Your task to perform on an android device: Open settings on Google Maps Image 0: 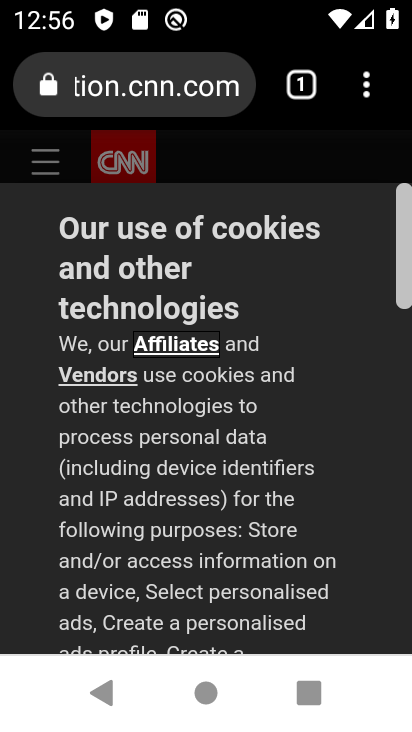
Step 0: press home button
Your task to perform on an android device: Open settings on Google Maps Image 1: 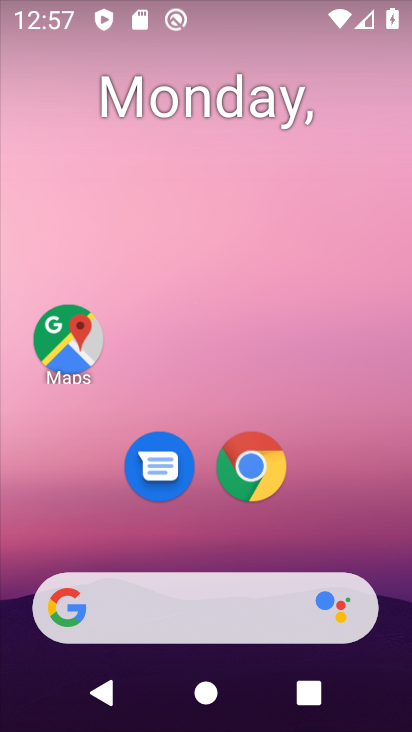
Step 1: click (69, 356)
Your task to perform on an android device: Open settings on Google Maps Image 2: 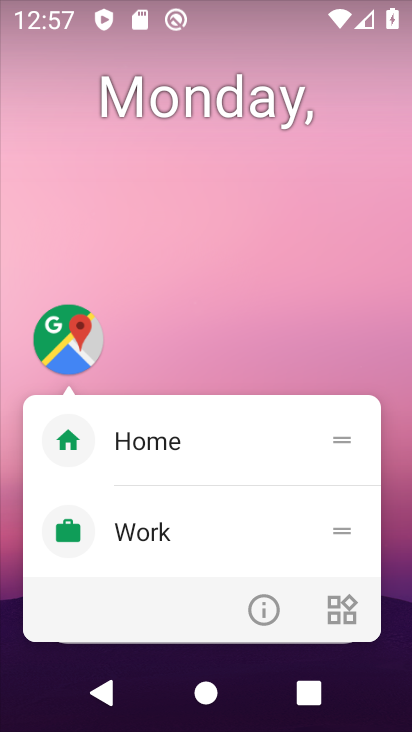
Step 2: click (72, 341)
Your task to perform on an android device: Open settings on Google Maps Image 3: 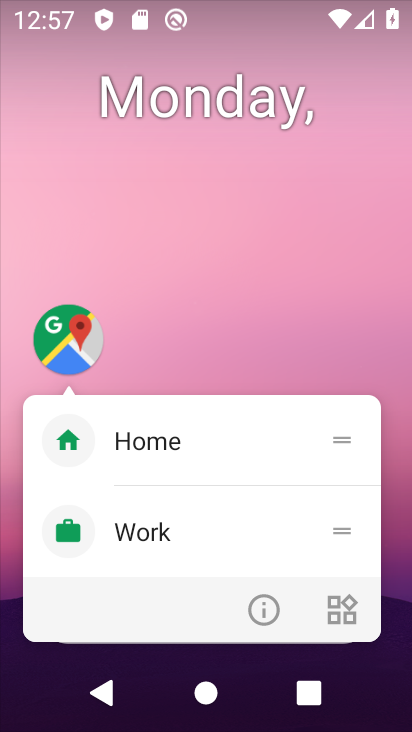
Step 3: click (72, 341)
Your task to perform on an android device: Open settings on Google Maps Image 4: 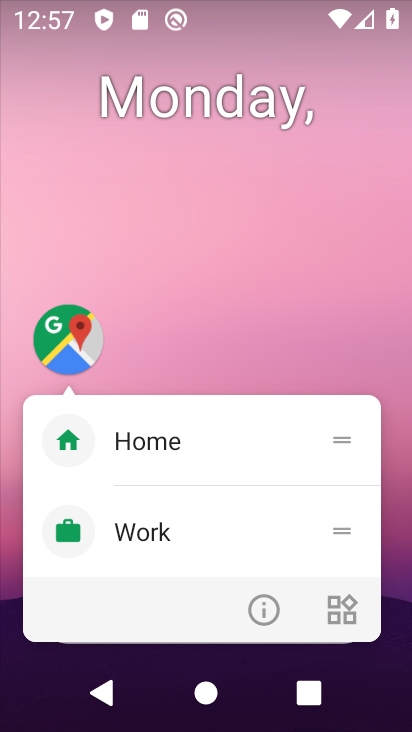
Step 4: click (73, 341)
Your task to perform on an android device: Open settings on Google Maps Image 5: 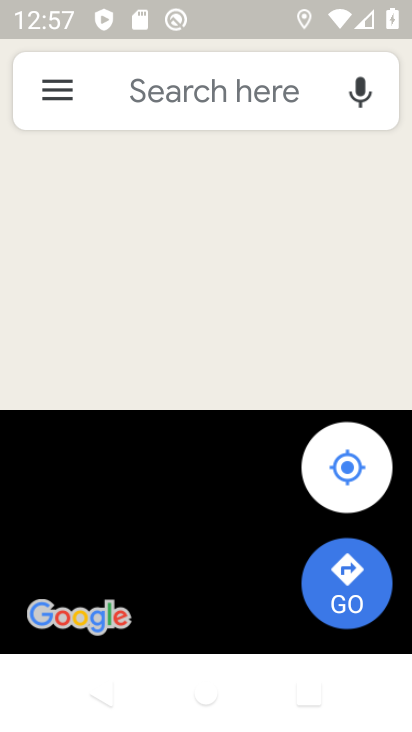
Step 5: click (51, 95)
Your task to perform on an android device: Open settings on Google Maps Image 6: 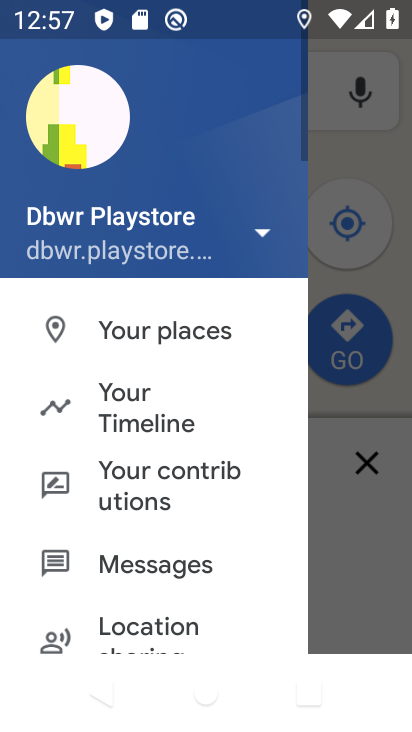
Step 6: drag from (156, 513) to (206, 158)
Your task to perform on an android device: Open settings on Google Maps Image 7: 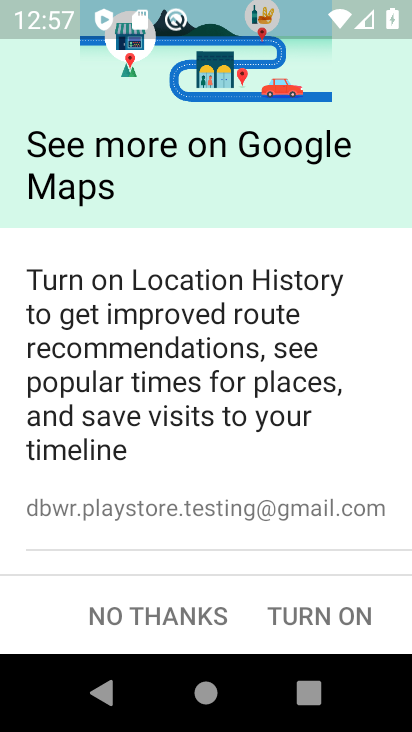
Step 7: click (210, 622)
Your task to perform on an android device: Open settings on Google Maps Image 8: 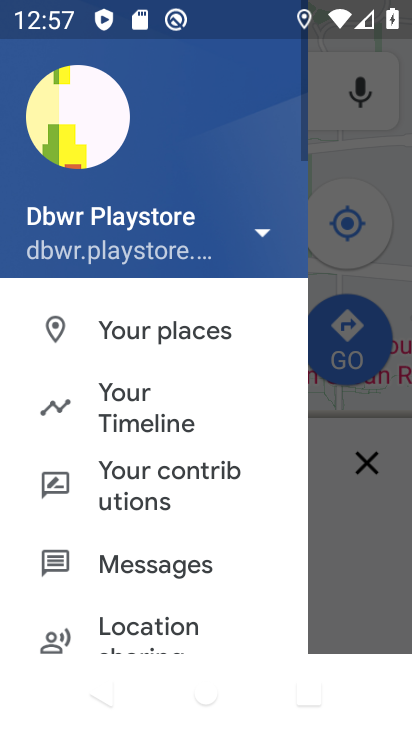
Step 8: drag from (150, 443) to (216, 52)
Your task to perform on an android device: Open settings on Google Maps Image 9: 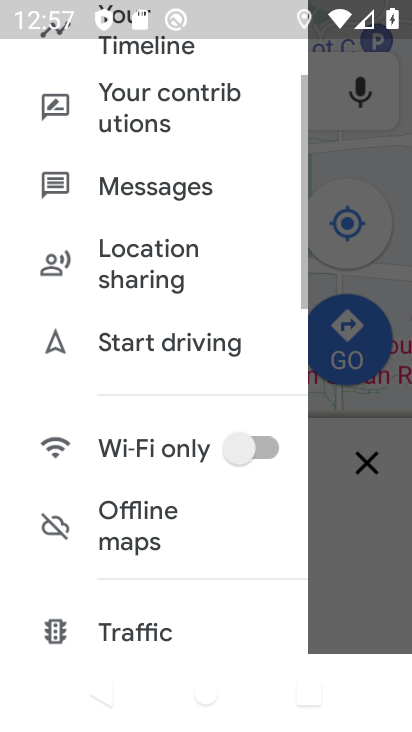
Step 9: drag from (166, 554) to (236, 26)
Your task to perform on an android device: Open settings on Google Maps Image 10: 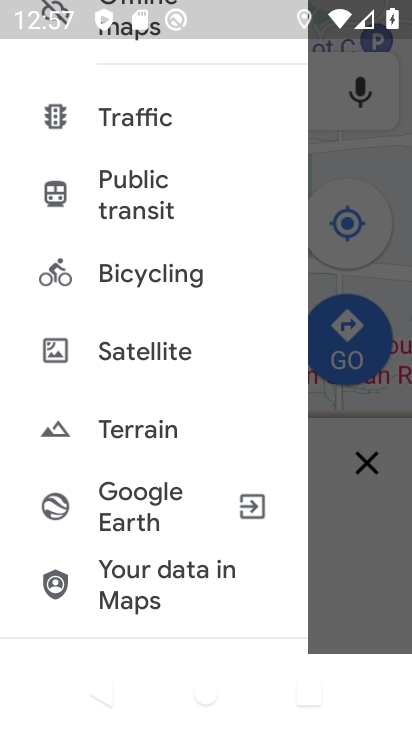
Step 10: drag from (154, 512) to (217, 95)
Your task to perform on an android device: Open settings on Google Maps Image 11: 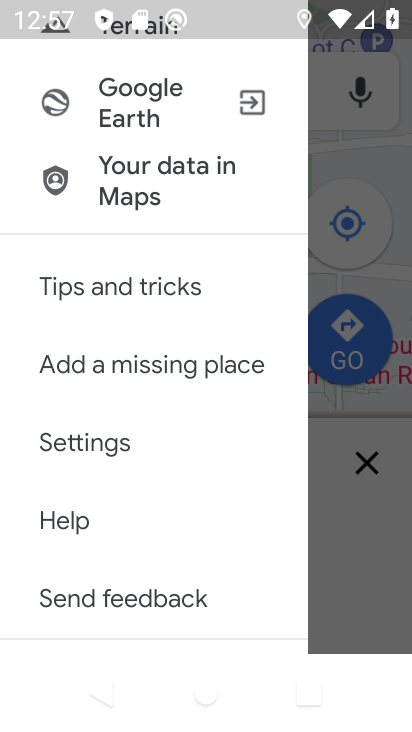
Step 11: click (125, 454)
Your task to perform on an android device: Open settings on Google Maps Image 12: 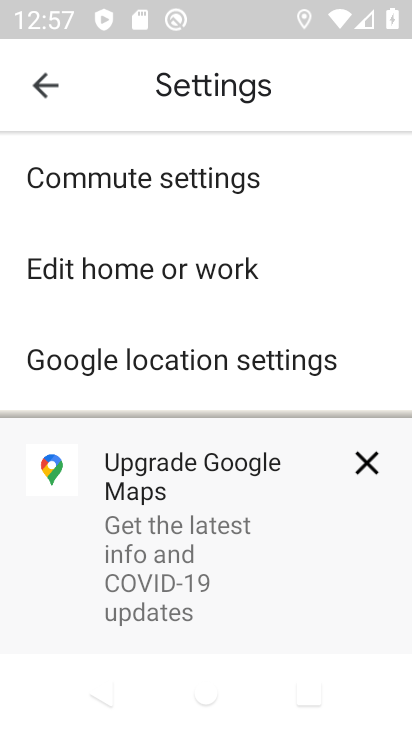
Step 12: click (361, 461)
Your task to perform on an android device: Open settings on Google Maps Image 13: 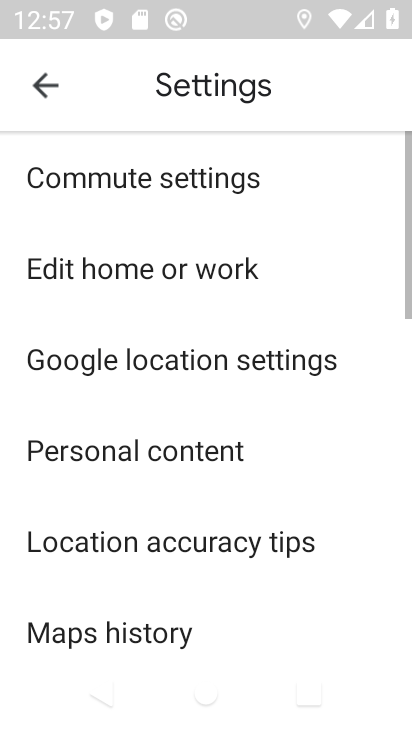
Step 13: task complete